Your task to perform on an android device: turn off picture-in-picture Image 0: 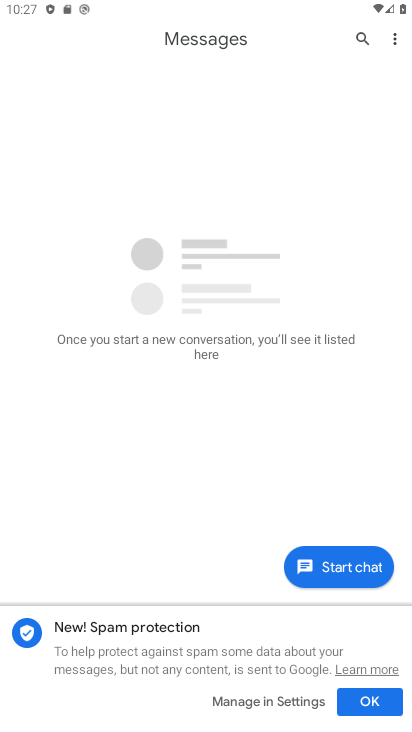
Step 0: press home button
Your task to perform on an android device: turn off picture-in-picture Image 1: 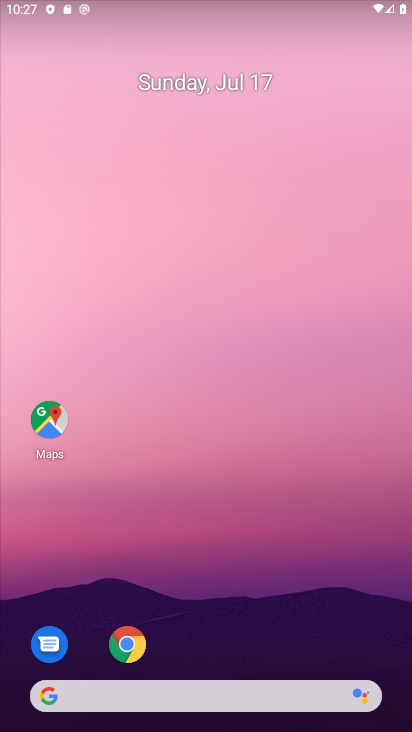
Step 1: drag from (213, 641) to (327, 51)
Your task to perform on an android device: turn off picture-in-picture Image 2: 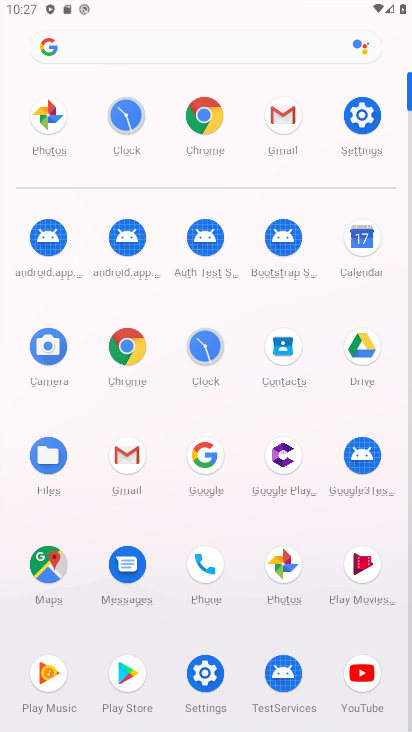
Step 2: click (216, 110)
Your task to perform on an android device: turn off picture-in-picture Image 3: 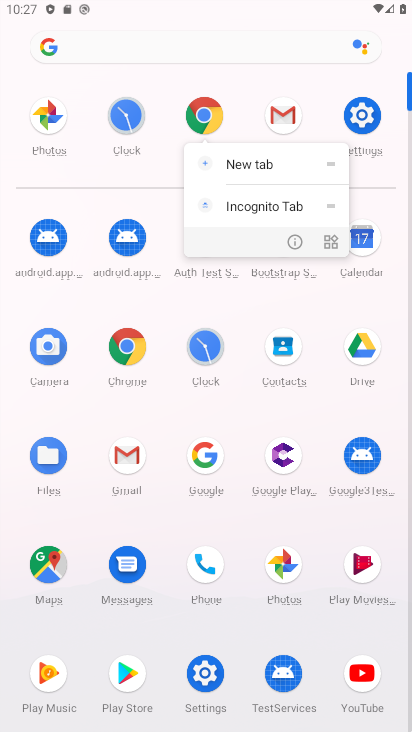
Step 3: click (299, 241)
Your task to perform on an android device: turn off picture-in-picture Image 4: 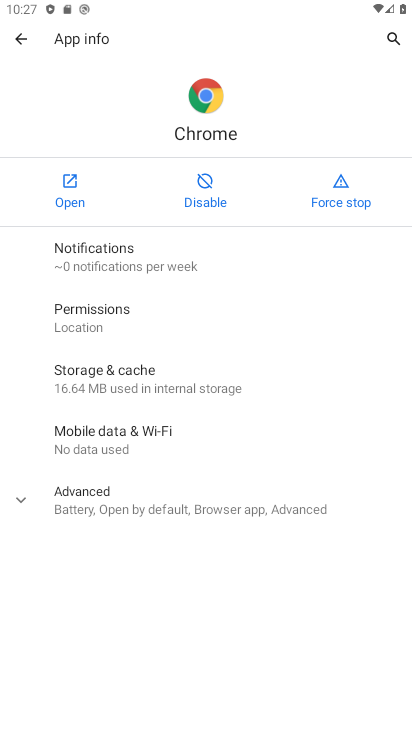
Step 4: click (129, 509)
Your task to perform on an android device: turn off picture-in-picture Image 5: 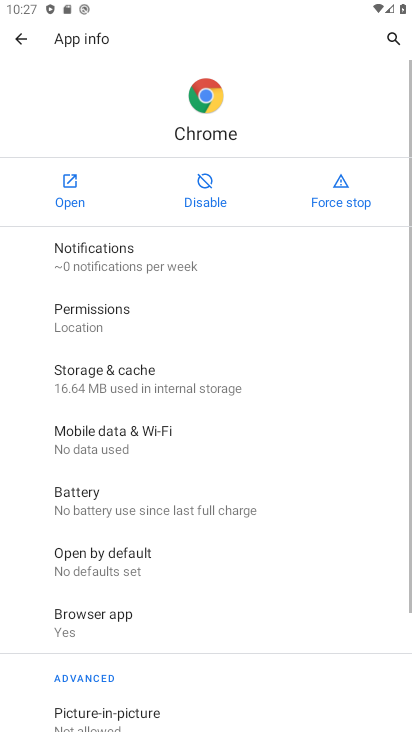
Step 5: drag from (157, 647) to (235, 143)
Your task to perform on an android device: turn off picture-in-picture Image 6: 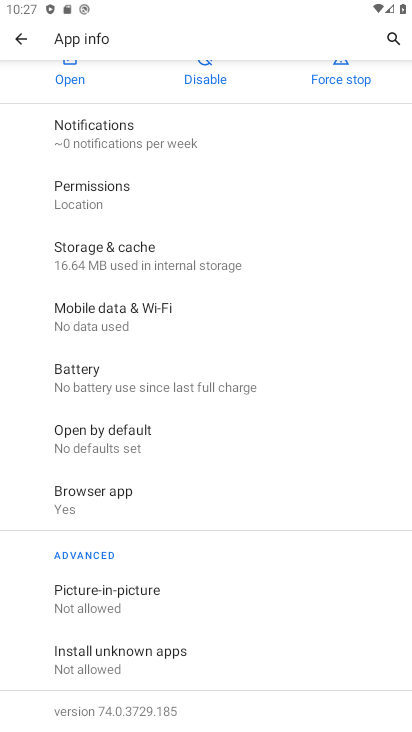
Step 6: click (118, 607)
Your task to perform on an android device: turn off picture-in-picture Image 7: 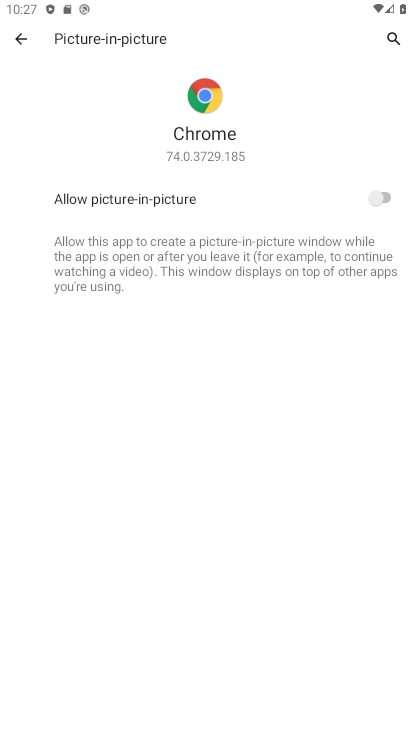
Step 7: task complete